Your task to perform on an android device: Open accessibility settings Image 0: 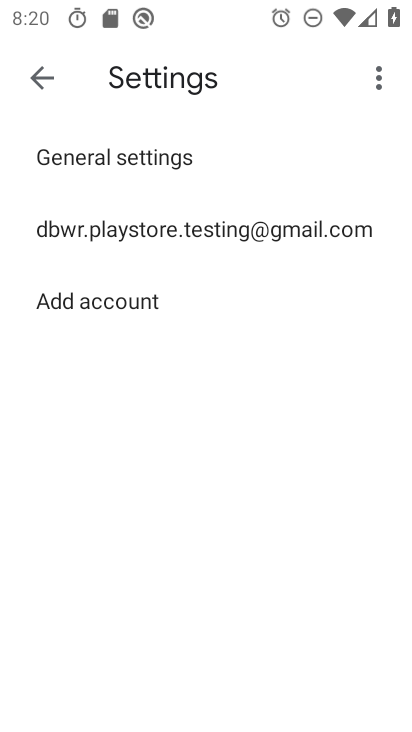
Step 0: press home button
Your task to perform on an android device: Open accessibility settings Image 1: 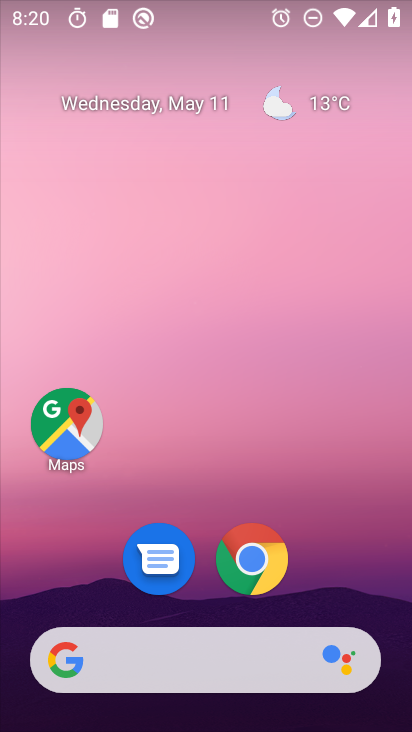
Step 1: drag from (350, 588) to (347, 89)
Your task to perform on an android device: Open accessibility settings Image 2: 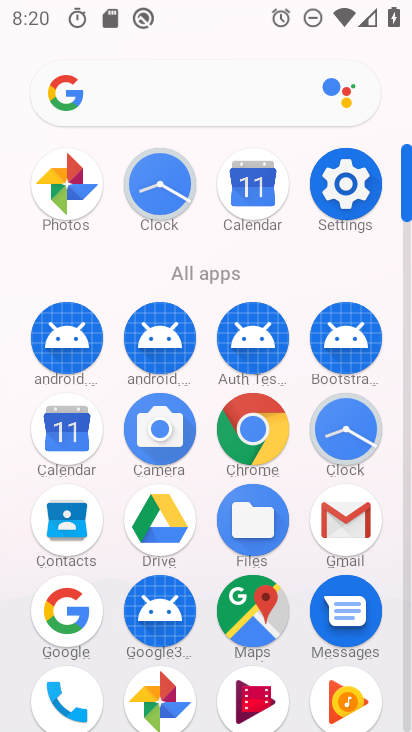
Step 2: click (346, 190)
Your task to perform on an android device: Open accessibility settings Image 3: 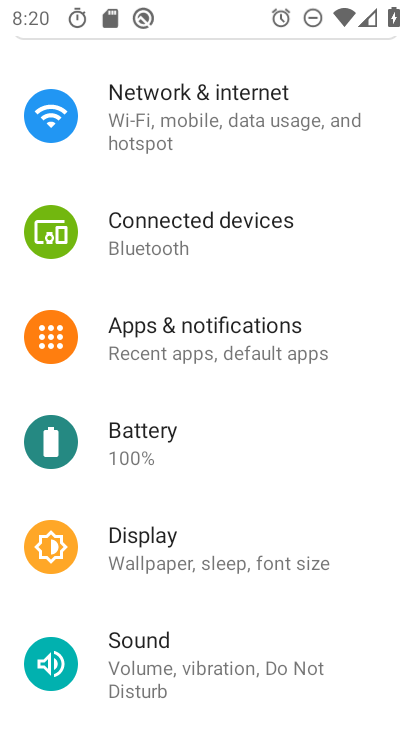
Step 3: drag from (242, 637) to (273, 245)
Your task to perform on an android device: Open accessibility settings Image 4: 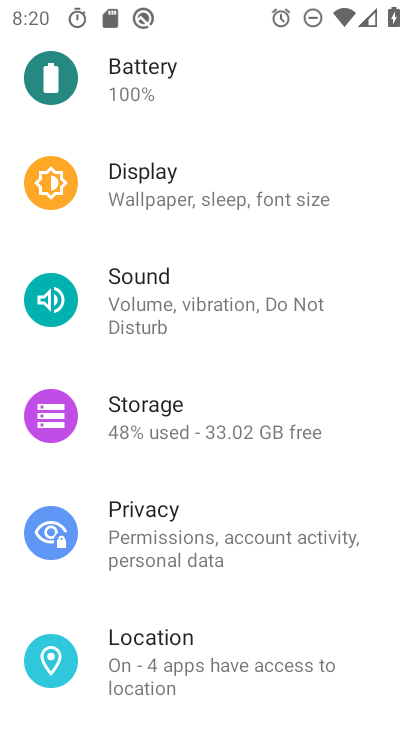
Step 4: drag from (192, 612) to (233, 133)
Your task to perform on an android device: Open accessibility settings Image 5: 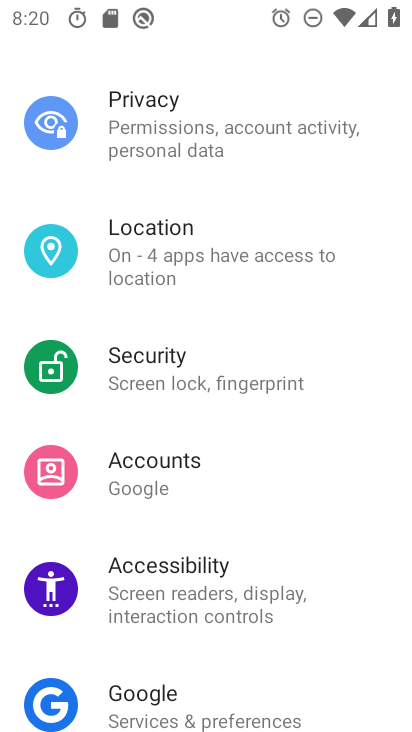
Step 5: click (182, 607)
Your task to perform on an android device: Open accessibility settings Image 6: 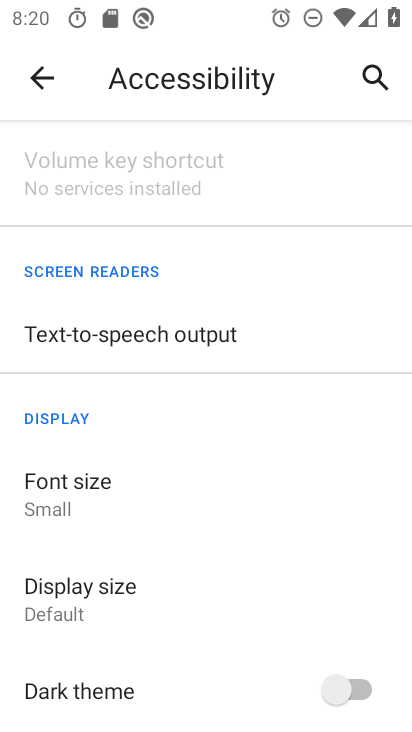
Step 6: task complete